Your task to perform on an android device: uninstall "Adobe Express: Graphic Design" Image 0: 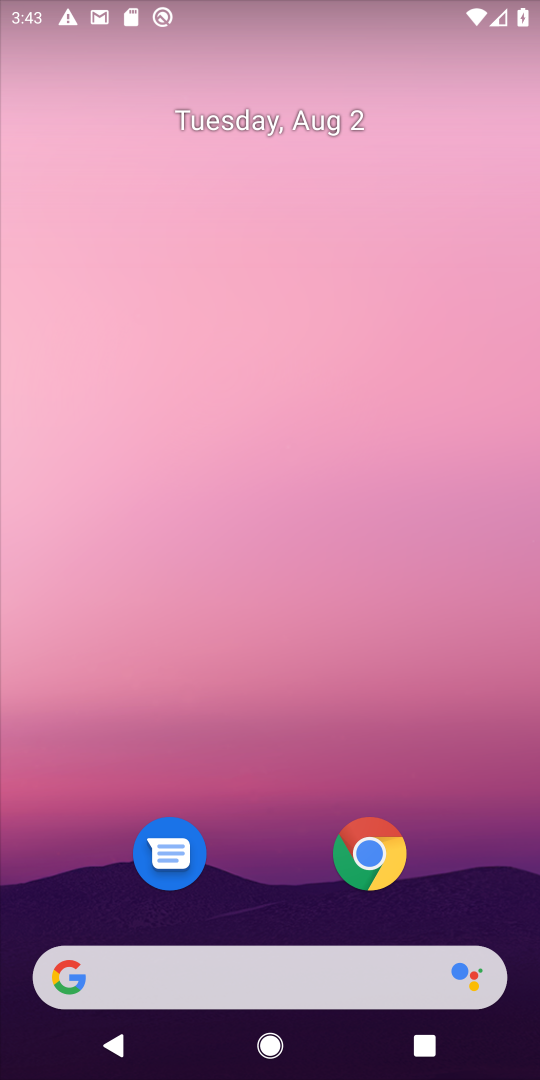
Step 0: drag from (320, 958) to (286, 344)
Your task to perform on an android device: uninstall "Adobe Express: Graphic Design" Image 1: 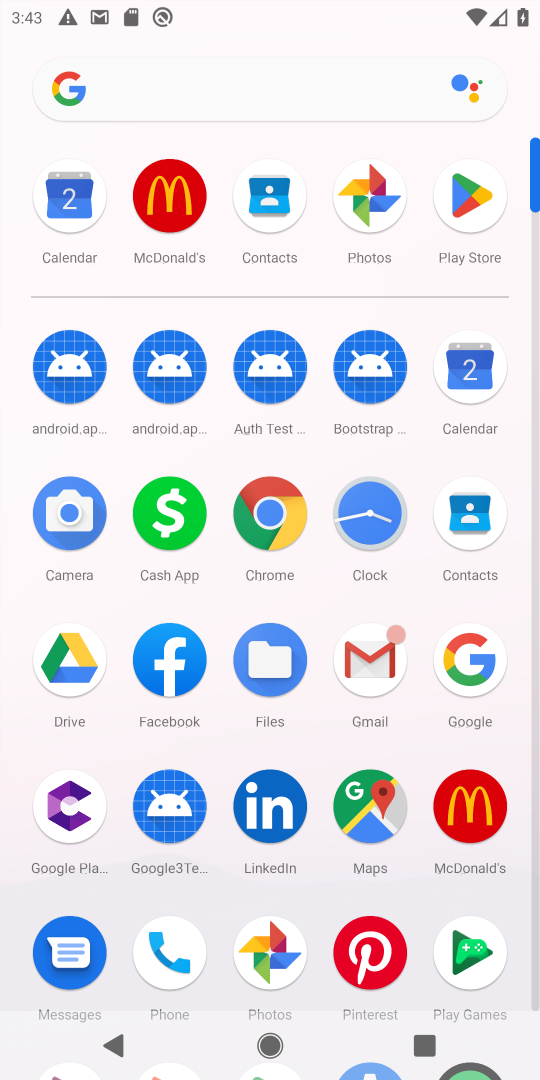
Step 1: click (471, 193)
Your task to perform on an android device: uninstall "Adobe Express: Graphic Design" Image 2: 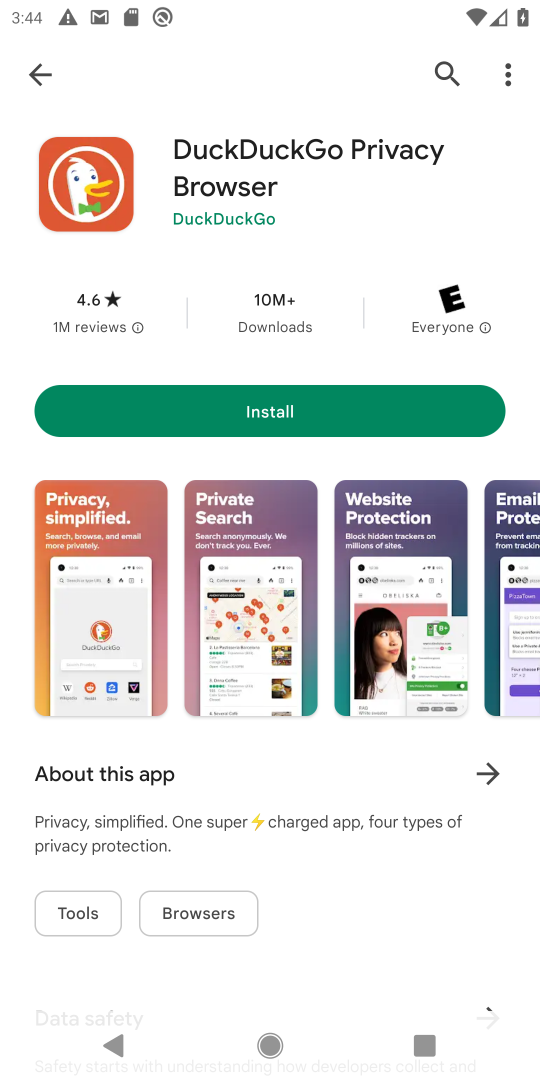
Step 2: click (437, 68)
Your task to perform on an android device: uninstall "Adobe Express: Graphic Design" Image 3: 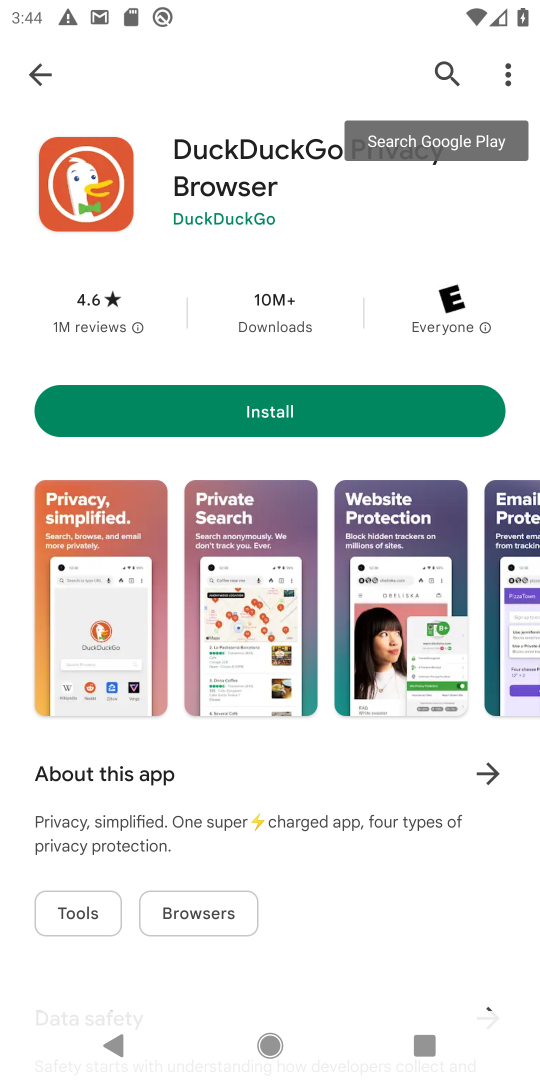
Step 3: click (437, 64)
Your task to perform on an android device: uninstall "Adobe Express: Graphic Design" Image 4: 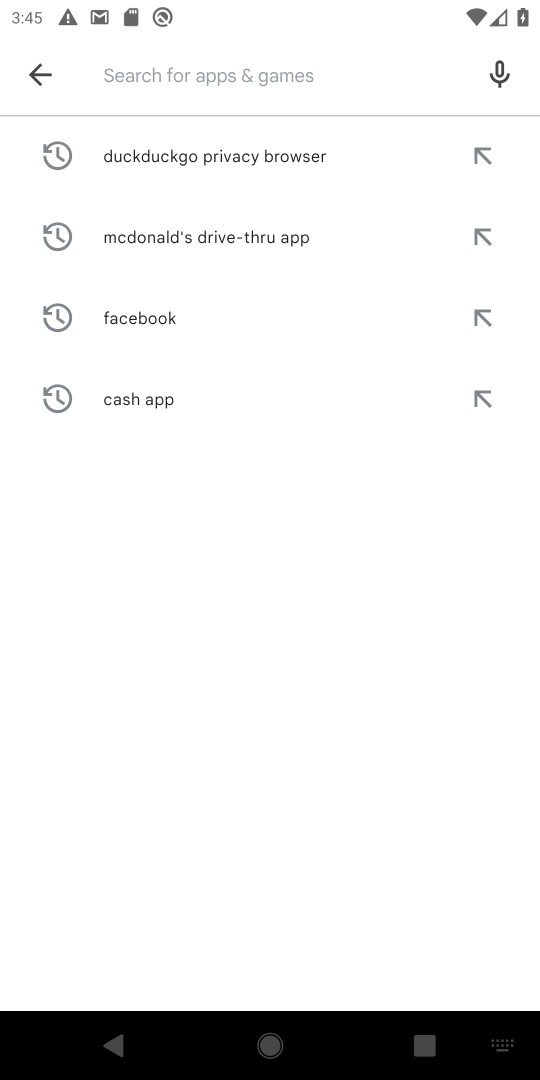
Step 4: type "Adobe Express: Graphic Design"
Your task to perform on an android device: uninstall "Adobe Express: Graphic Design" Image 5: 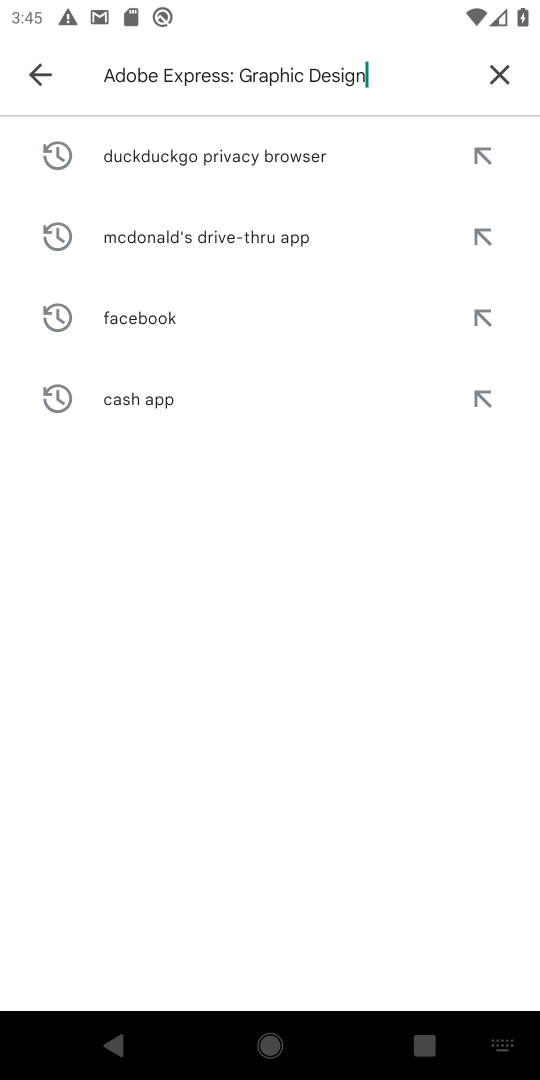
Step 5: type ""
Your task to perform on an android device: uninstall "Adobe Express: Graphic Design" Image 6: 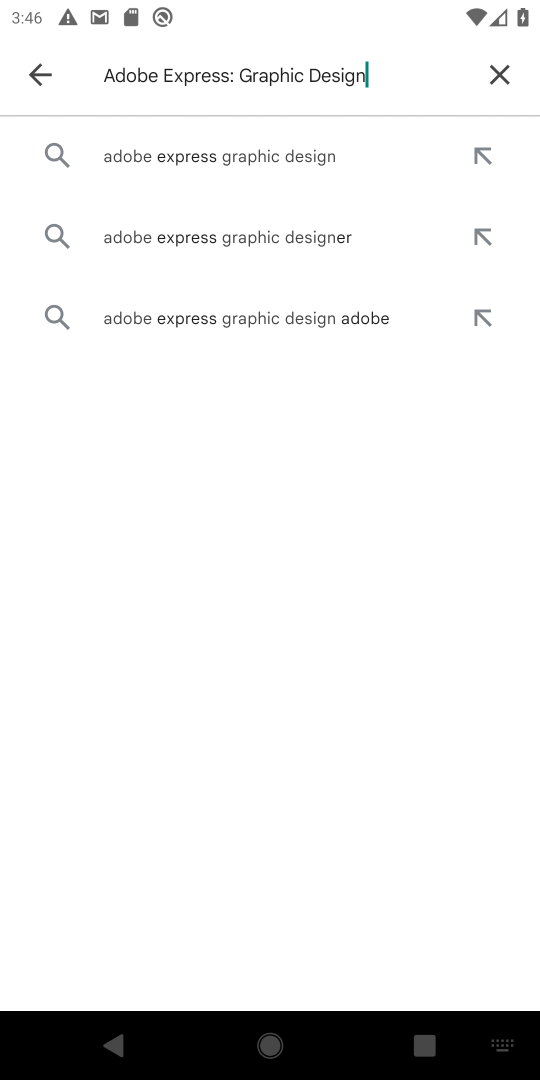
Step 6: click (283, 159)
Your task to perform on an android device: uninstall "Adobe Express: Graphic Design" Image 7: 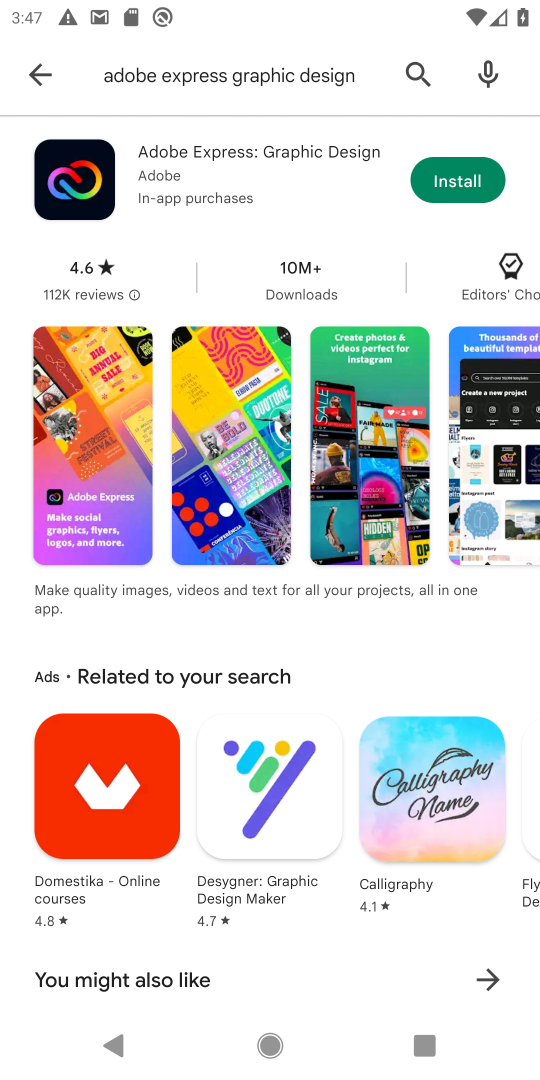
Step 7: task complete